Your task to perform on an android device: Open accessibility settings Image 0: 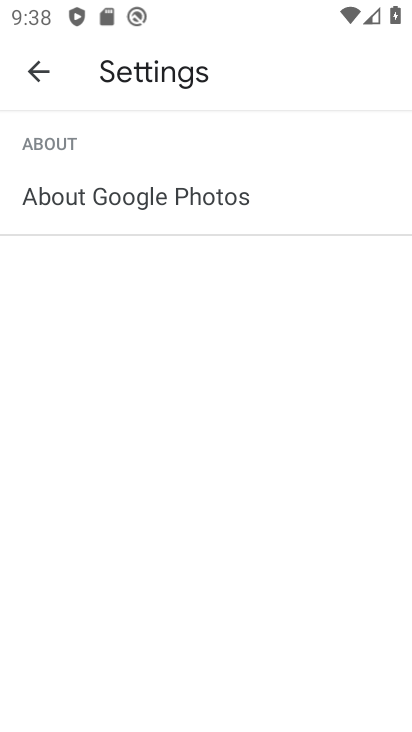
Step 0: press home button
Your task to perform on an android device: Open accessibility settings Image 1: 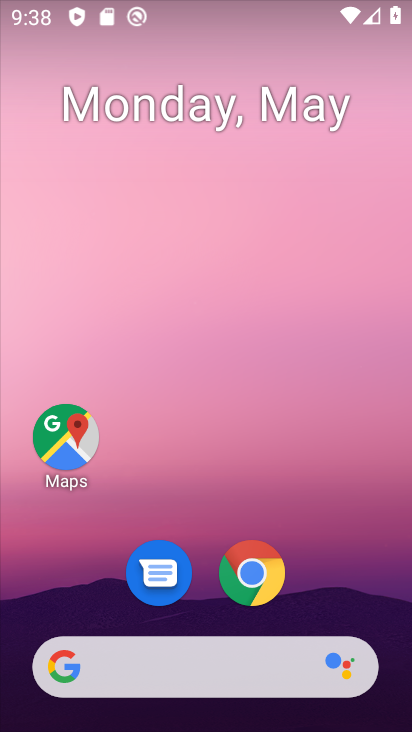
Step 1: drag from (209, 509) to (167, 4)
Your task to perform on an android device: Open accessibility settings Image 2: 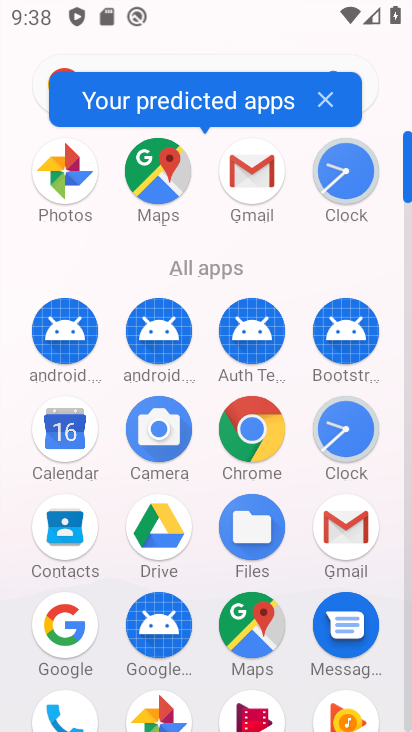
Step 2: drag from (255, 589) to (186, 321)
Your task to perform on an android device: Open accessibility settings Image 3: 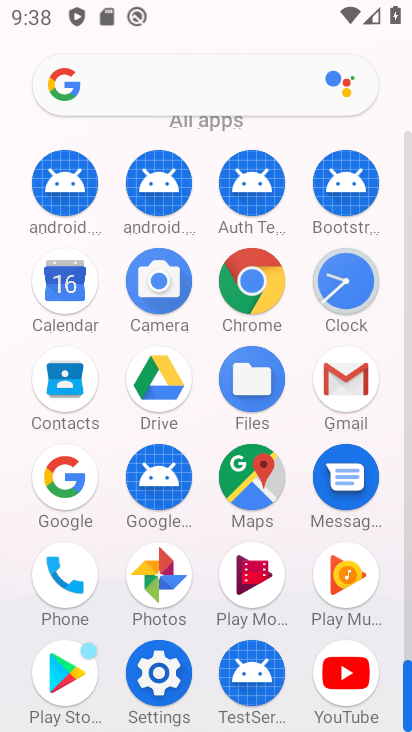
Step 3: click (163, 661)
Your task to perform on an android device: Open accessibility settings Image 4: 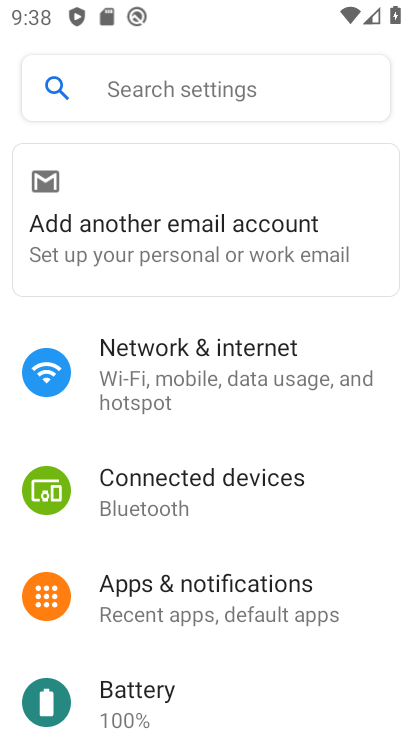
Step 4: drag from (160, 682) to (169, 293)
Your task to perform on an android device: Open accessibility settings Image 5: 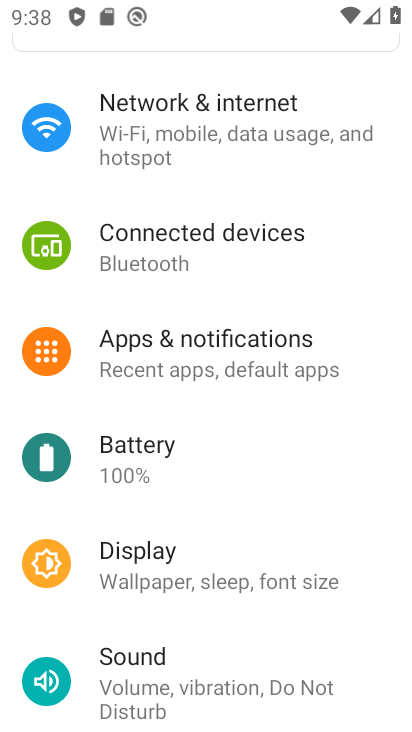
Step 5: drag from (171, 592) to (110, 116)
Your task to perform on an android device: Open accessibility settings Image 6: 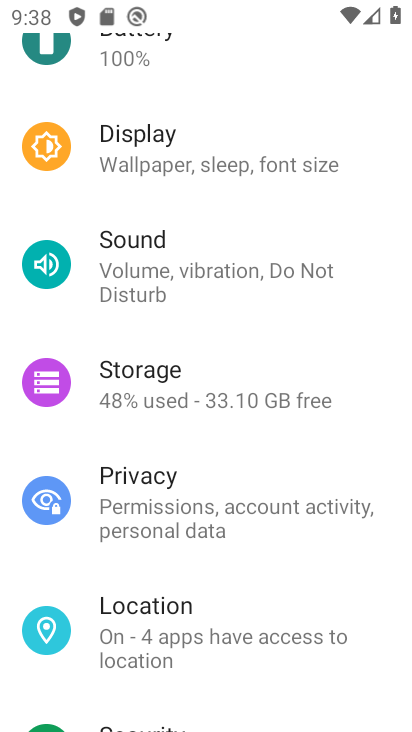
Step 6: drag from (307, 629) to (19, 17)
Your task to perform on an android device: Open accessibility settings Image 7: 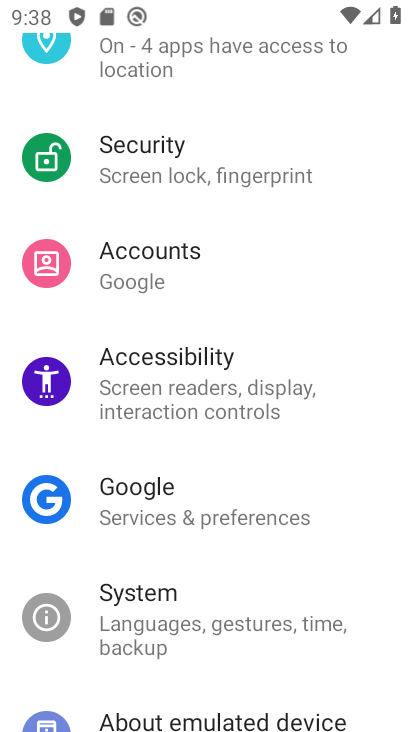
Step 7: drag from (103, 671) to (44, 117)
Your task to perform on an android device: Open accessibility settings Image 8: 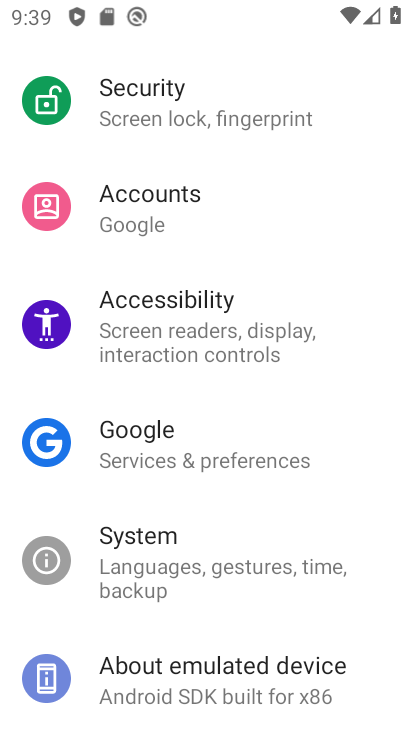
Step 8: click (184, 331)
Your task to perform on an android device: Open accessibility settings Image 9: 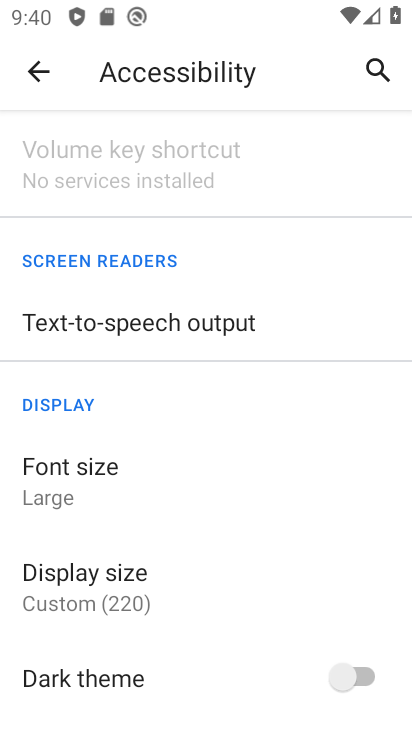
Step 9: task complete